Your task to perform on an android device: Open sound settings Image 0: 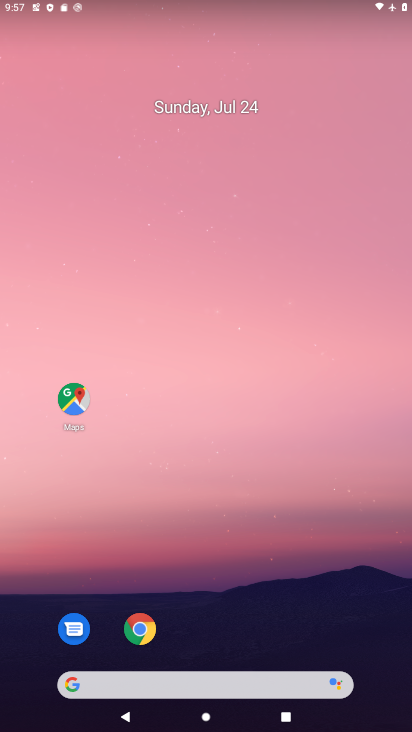
Step 0: task complete